Your task to perform on an android device: change text size in settings app Image 0: 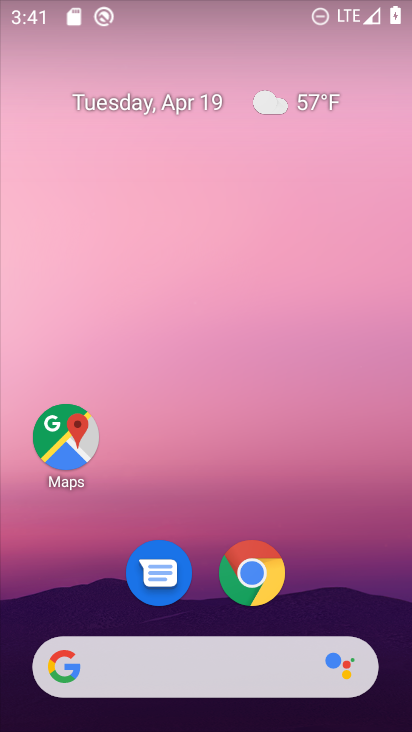
Step 0: drag from (354, 550) to (358, 33)
Your task to perform on an android device: change text size in settings app Image 1: 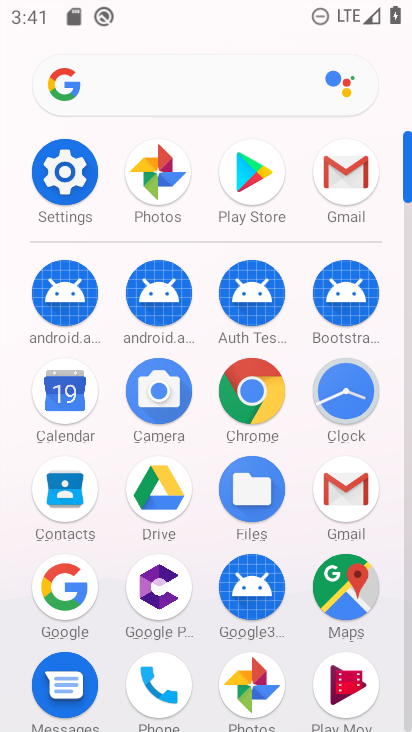
Step 1: click (61, 171)
Your task to perform on an android device: change text size in settings app Image 2: 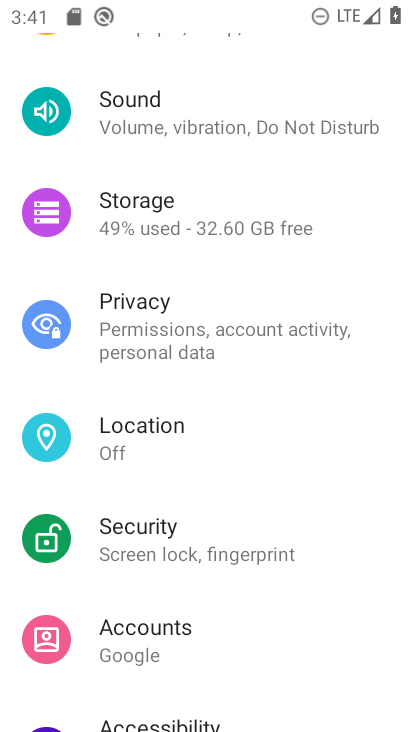
Step 2: drag from (339, 355) to (326, 509)
Your task to perform on an android device: change text size in settings app Image 3: 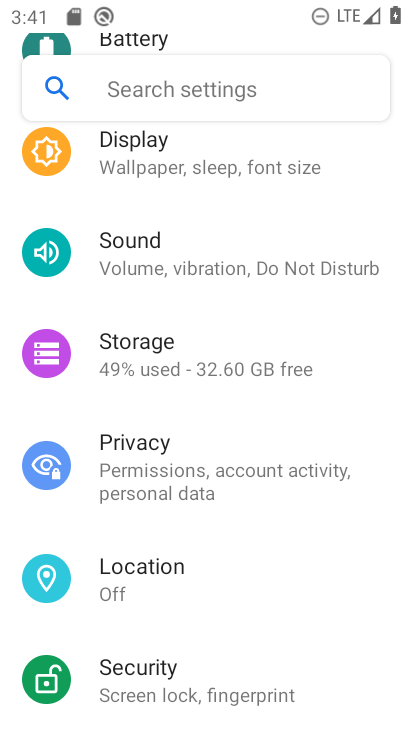
Step 3: click (110, 170)
Your task to perform on an android device: change text size in settings app Image 4: 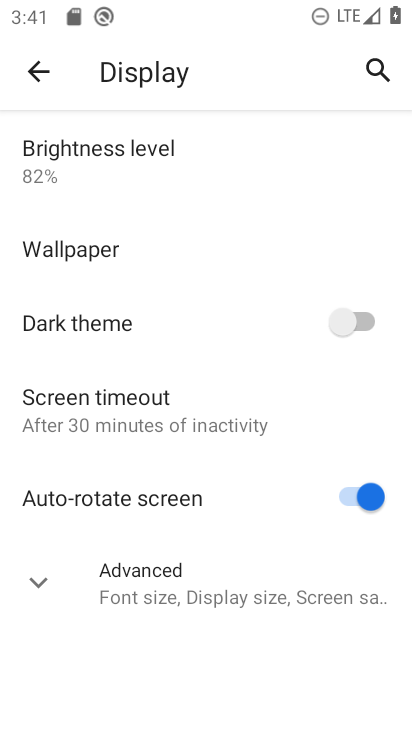
Step 4: click (38, 591)
Your task to perform on an android device: change text size in settings app Image 5: 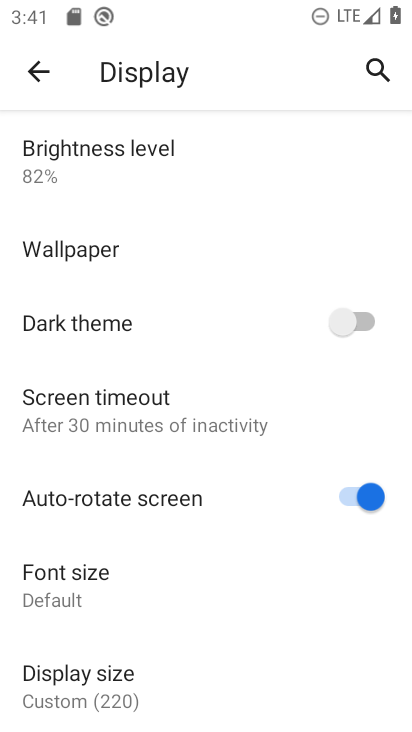
Step 5: click (36, 582)
Your task to perform on an android device: change text size in settings app Image 6: 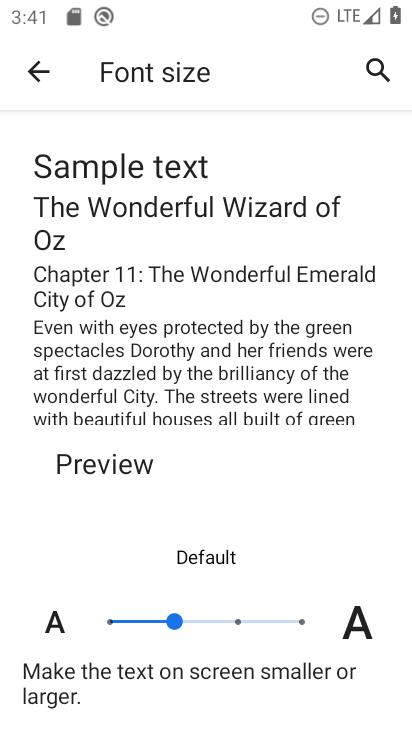
Step 6: click (226, 620)
Your task to perform on an android device: change text size in settings app Image 7: 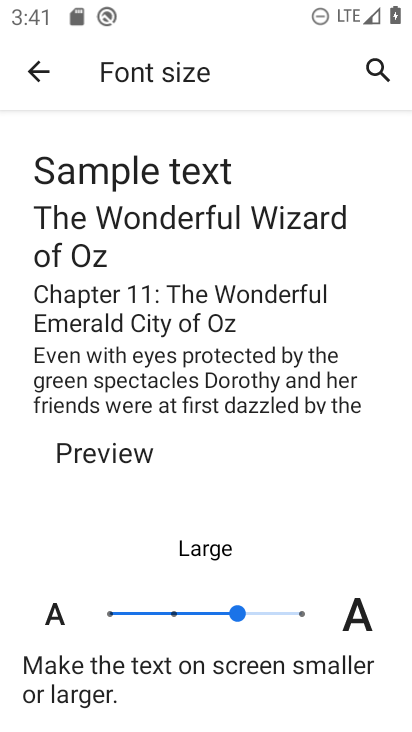
Step 7: task complete